Your task to perform on an android device: open app "Spotify" (install if not already installed) Image 0: 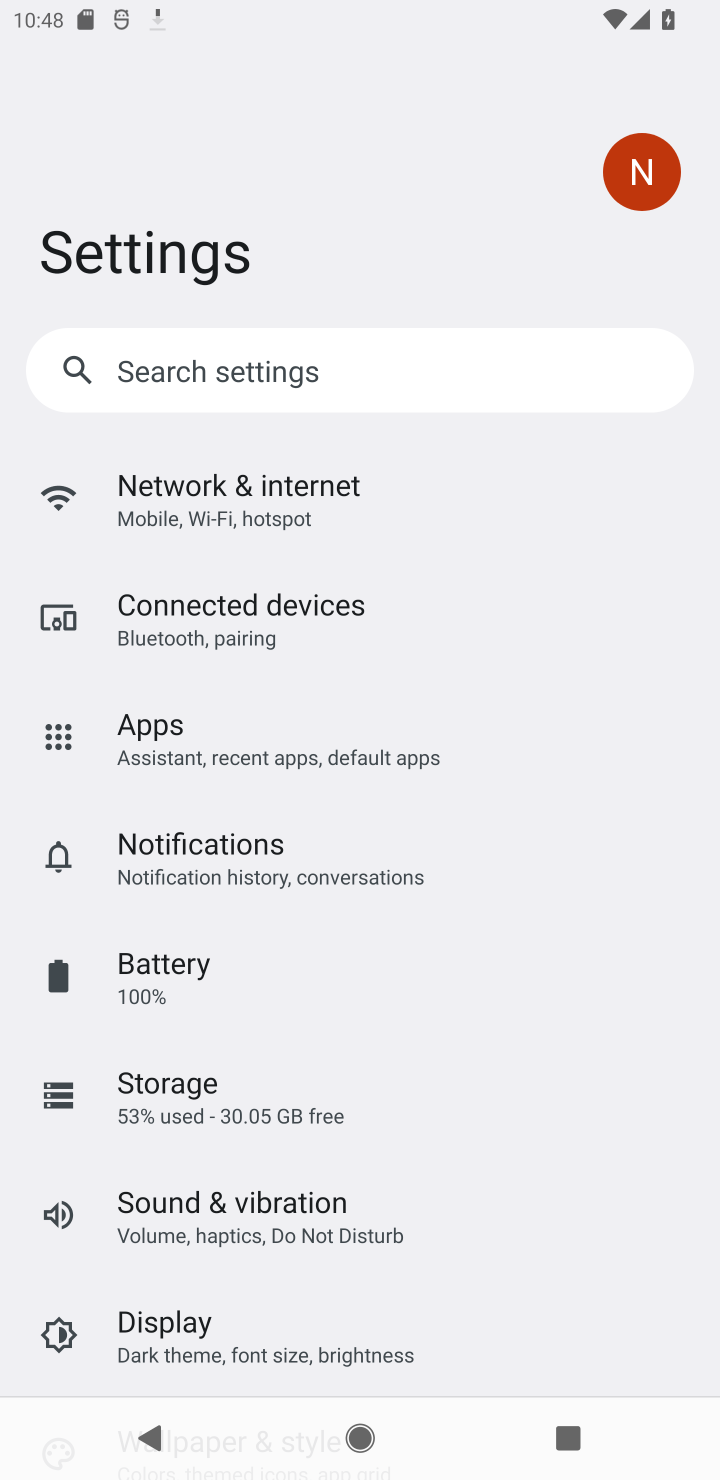
Step 0: press home button
Your task to perform on an android device: open app "Spotify" (install if not already installed) Image 1: 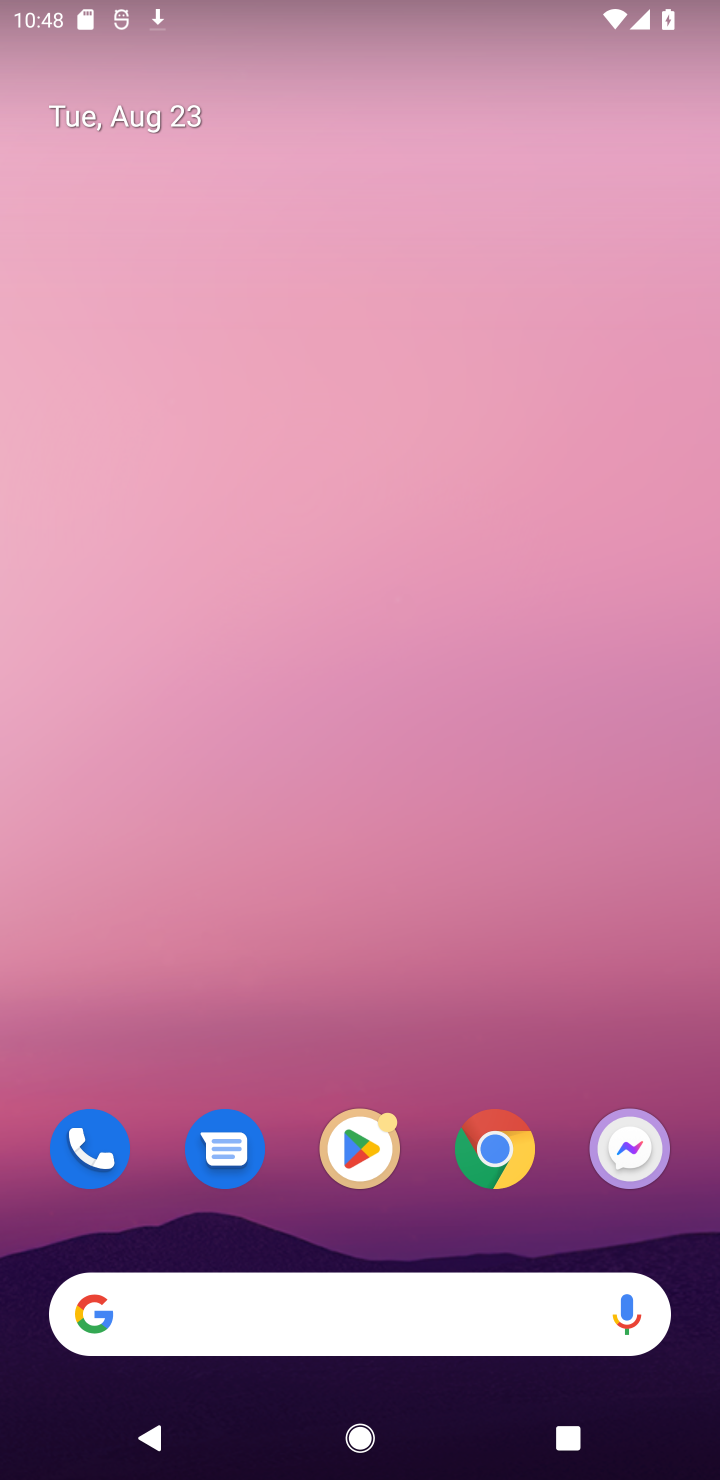
Step 1: click (372, 1178)
Your task to perform on an android device: open app "Spotify" (install if not already installed) Image 2: 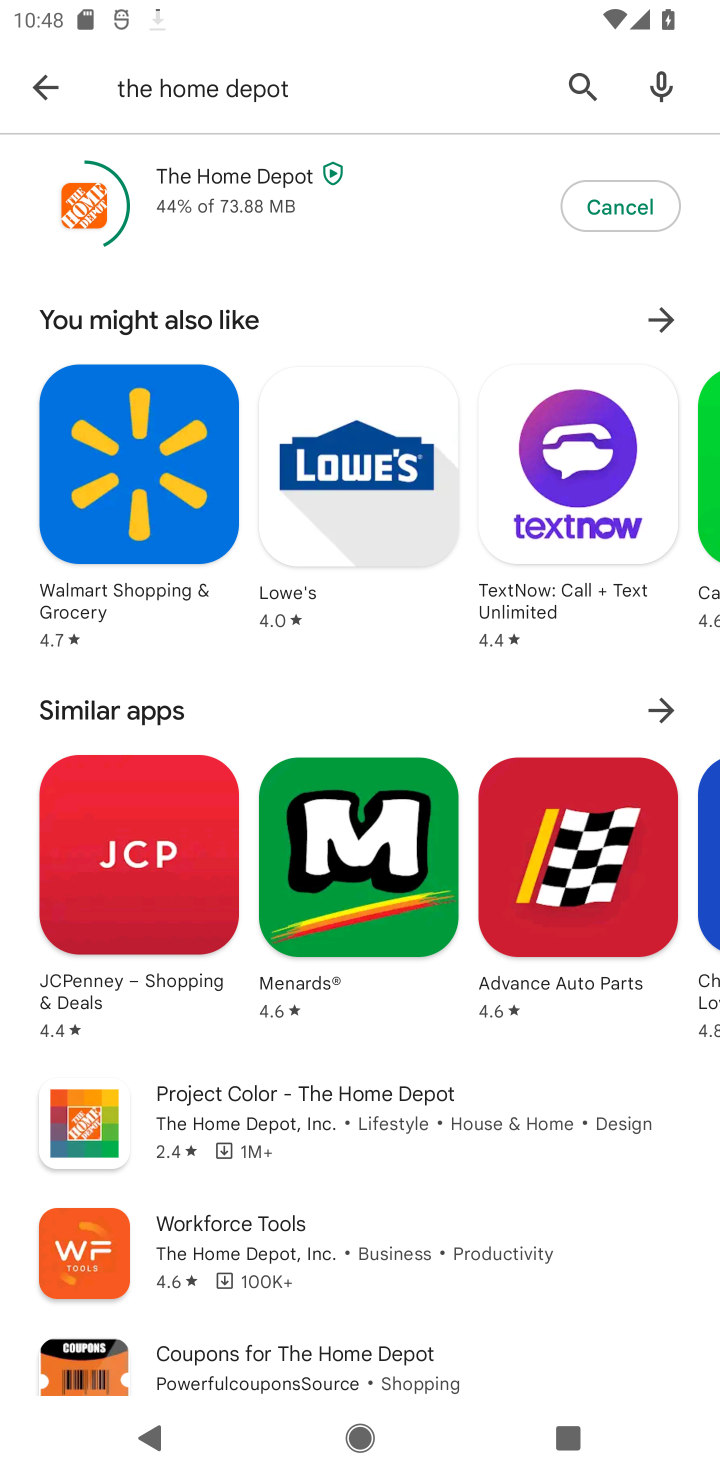
Step 2: click (555, 87)
Your task to perform on an android device: open app "Spotify" (install if not already installed) Image 3: 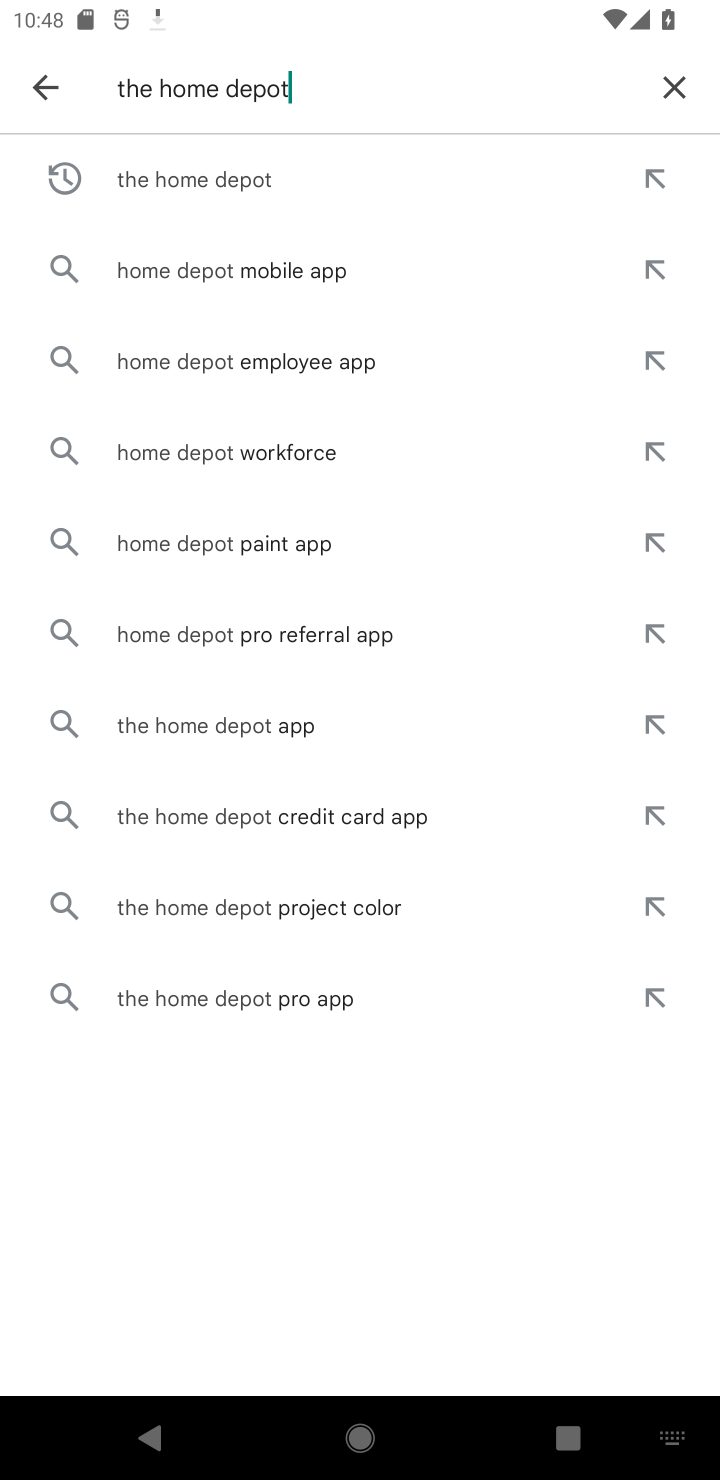
Step 3: click (672, 99)
Your task to perform on an android device: open app "Spotify" (install if not already installed) Image 4: 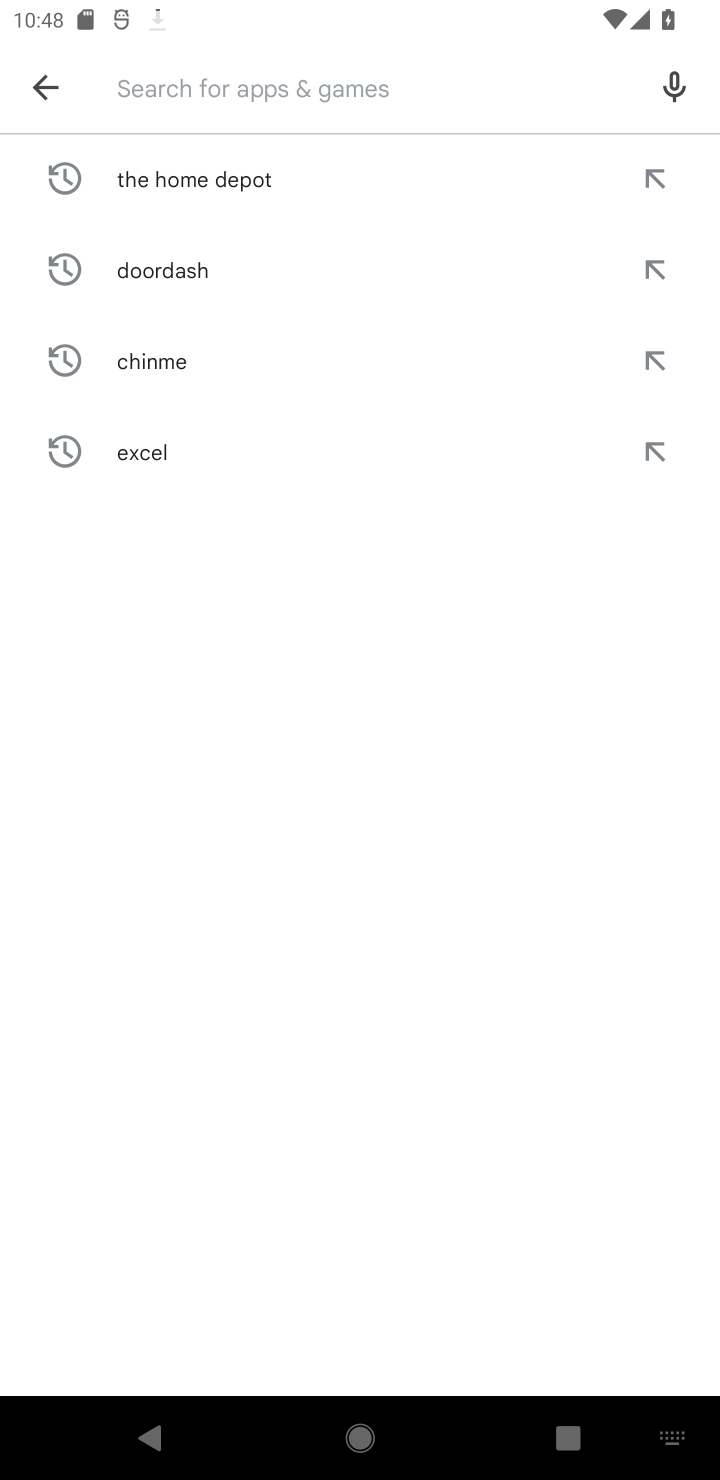
Step 4: type "spotify"
Your task to perform on an android device: open app "Spotify" (install if not already installed) Image 5: 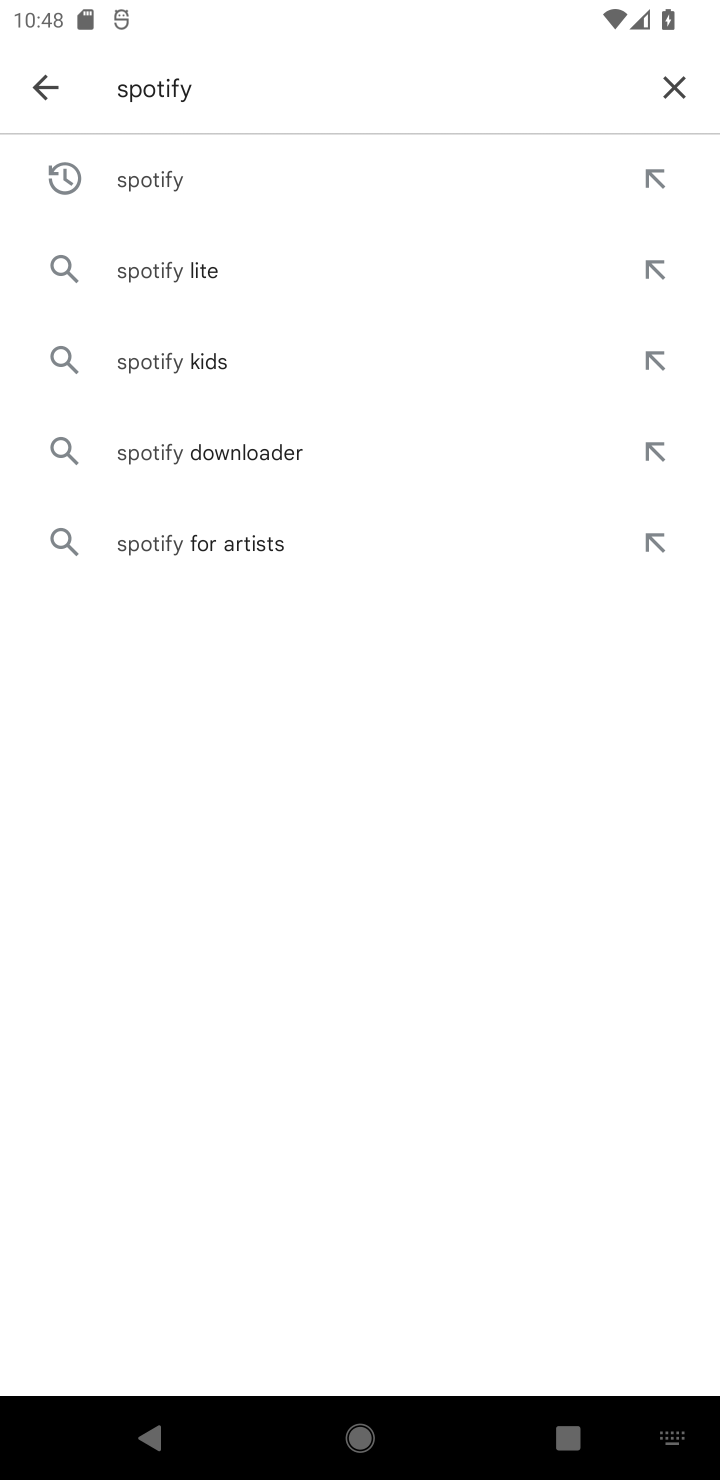
Step 5: click (263, 153)
Your task to perform on an android device: open app "Spotify" (install if not already installed) Image 6: 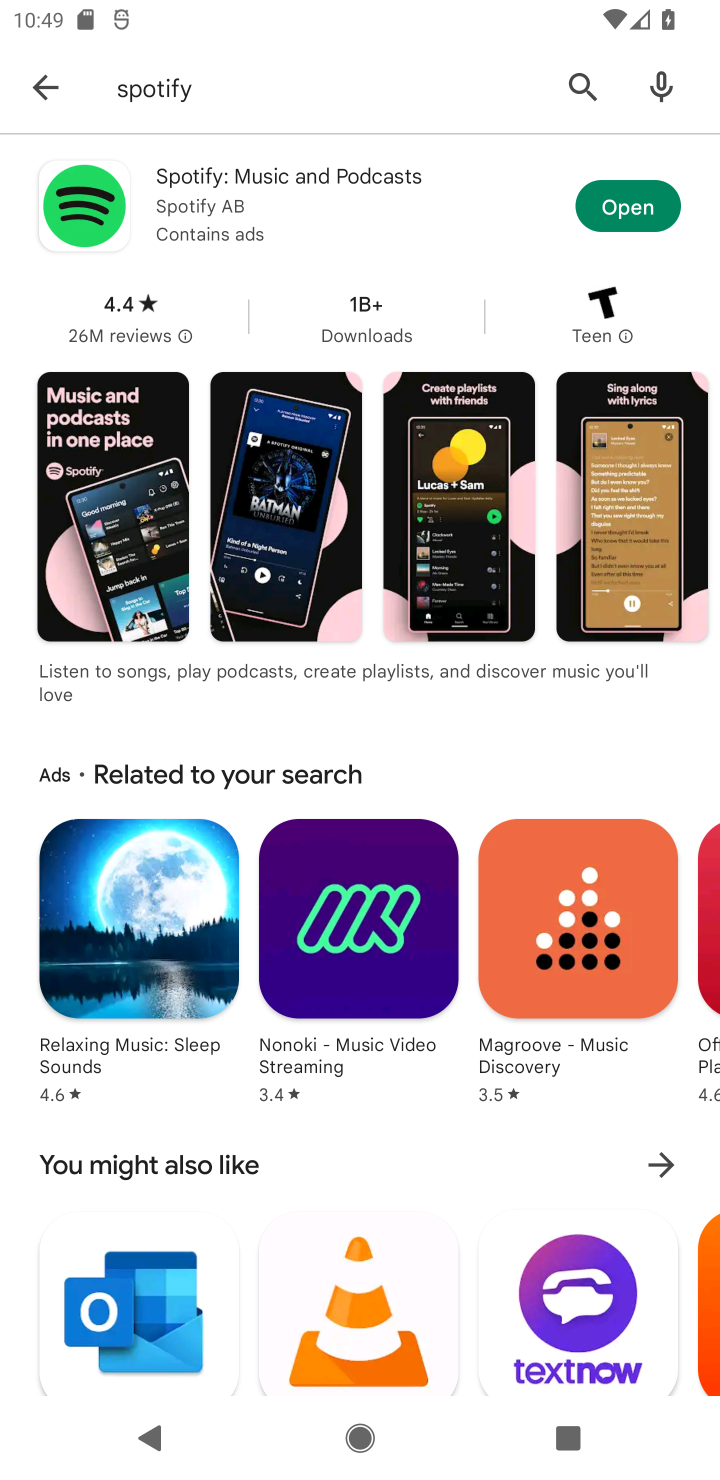
Step 6: click (580, 233)
Your task to perform on an android device: open app "Spotify" (install if not already installed) Image 7: 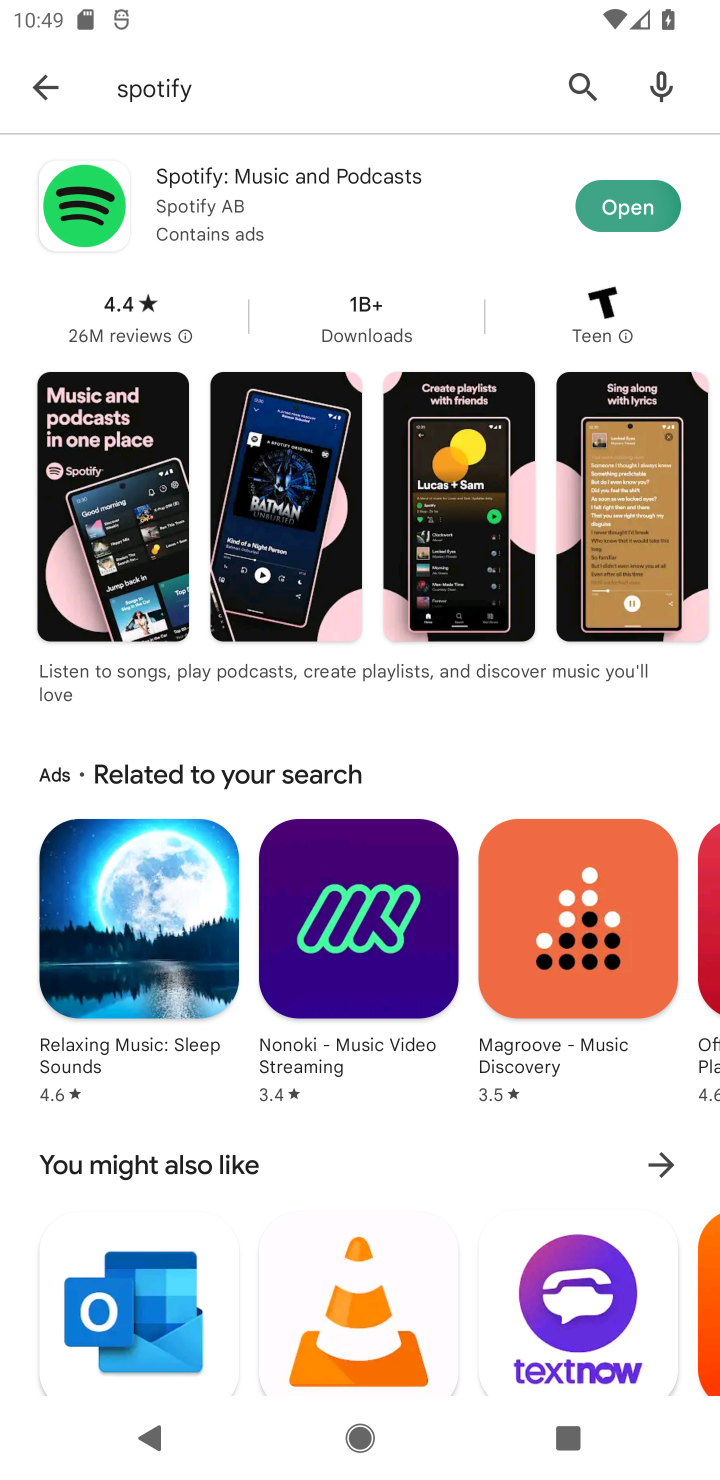
Step 7: task complete